Your task to perform on an android device: Go to settings Image 0: 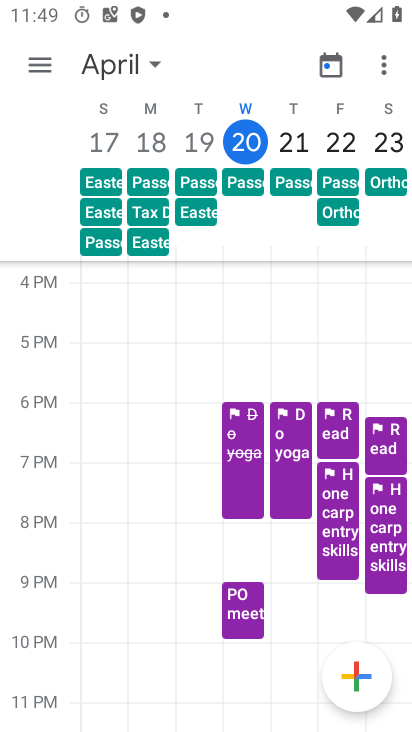
Step 0: drag from (218, 618) to (361, 12)
Your task to perform on an android device: Go to settings Image 1: 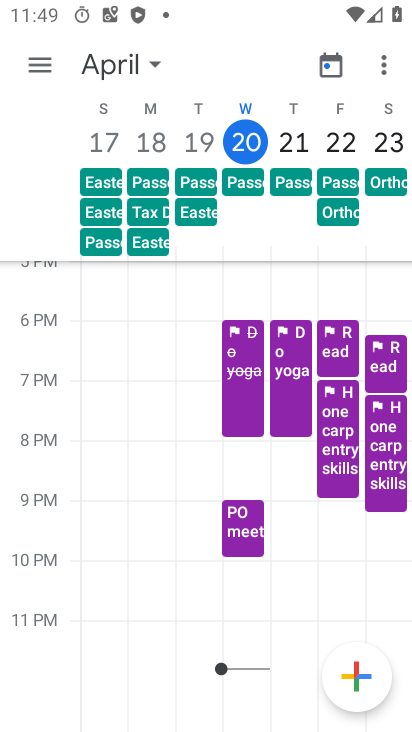
Step 1: press home button
Your task to perform on an android device: Go to settings Image 2: 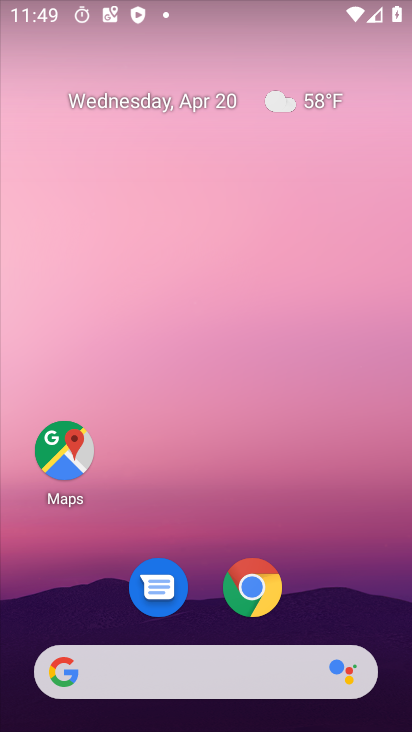
Step 2: drag from (206, 507) to (312, 14)
Your task to perform on an android device: Go to settings Image 3: 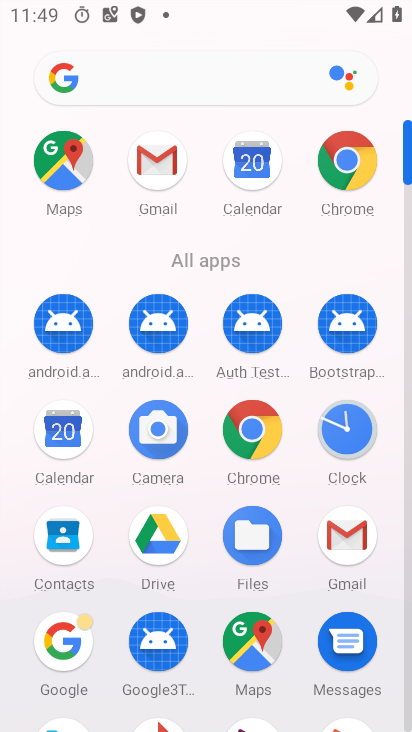
Step 3: drag from (196, 495) to (225, 148)
Your task to perform on an android device: Go to settings Image 4: 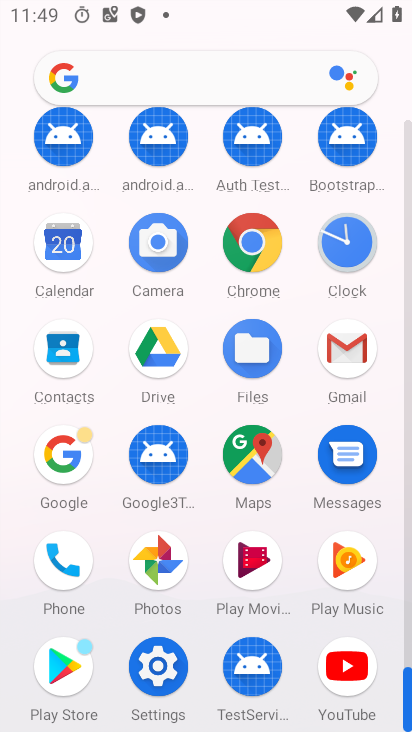
Step 4: click (155, 665)
Your task to perform on an android device: Go to settings Image 5: 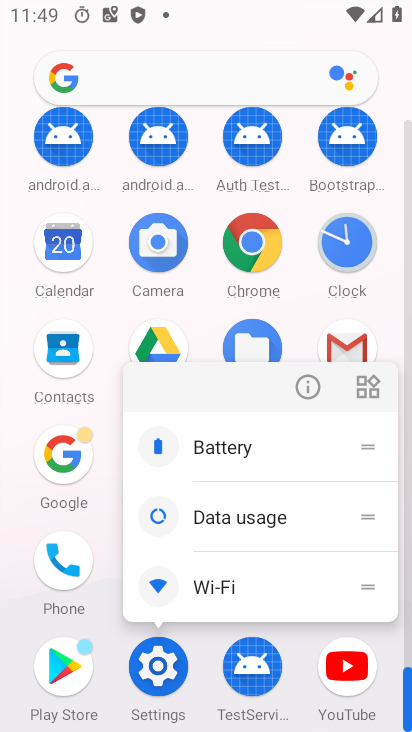
Step 5: click (156, 664)
Your task to perform on an android device: Go to settings Image 6: 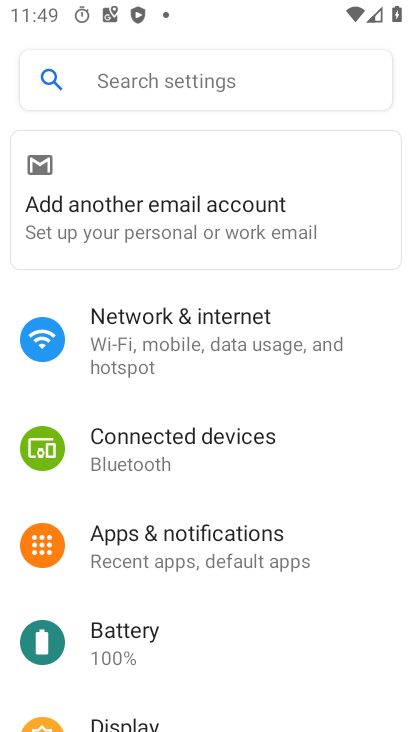
Step 6: task complete